Your task to perform on an android device: Open Reddit.com Image 0: 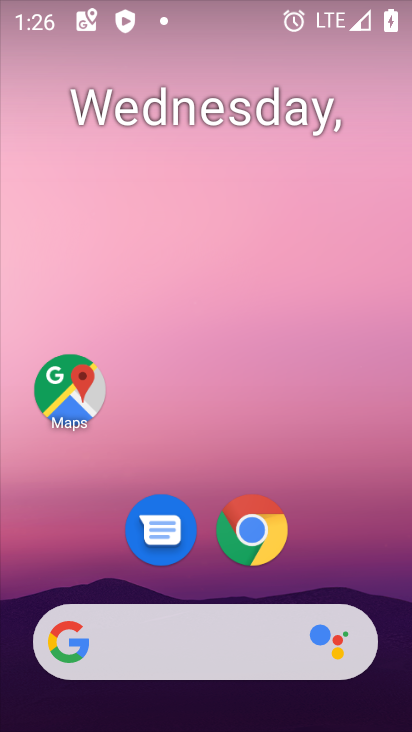
Step 0: press home button
Your task to perform on an android device: Open Reddit.com Image 1: 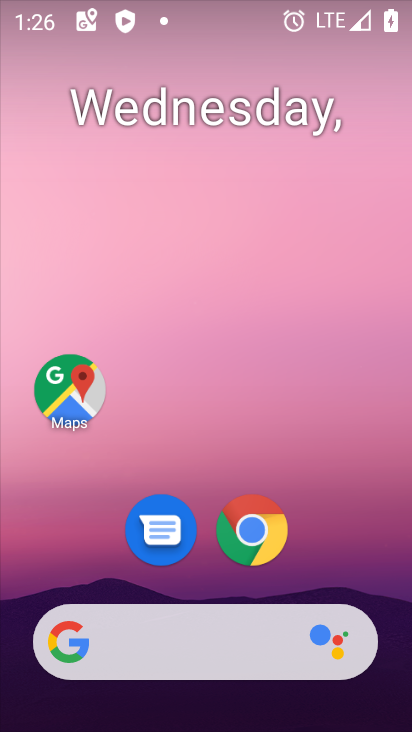
Step 1: drag from (353, 596) to (323, 259)
Your task to perform on an android device: Open Reddit.com Image 2: 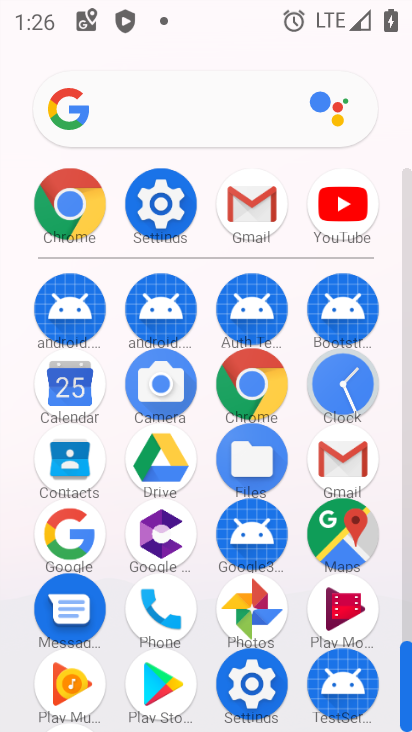
Step 2: click (83, 215)
Your task to perform on an android device: Open Reddit.com Image 3: 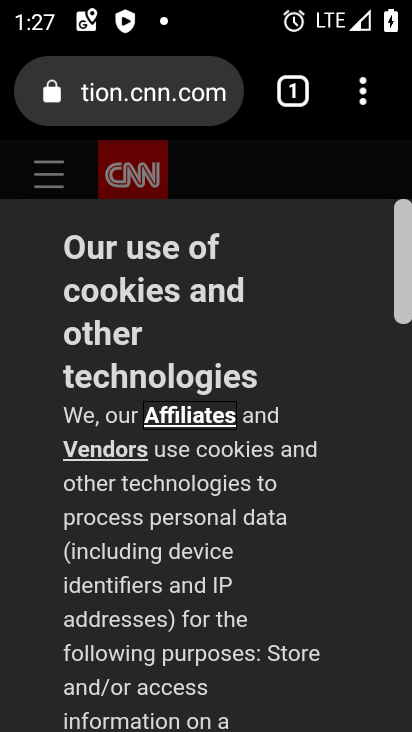
Step 3: click (179, 89)
Your task to perform on an android device: Open Reddit.com Image 4: 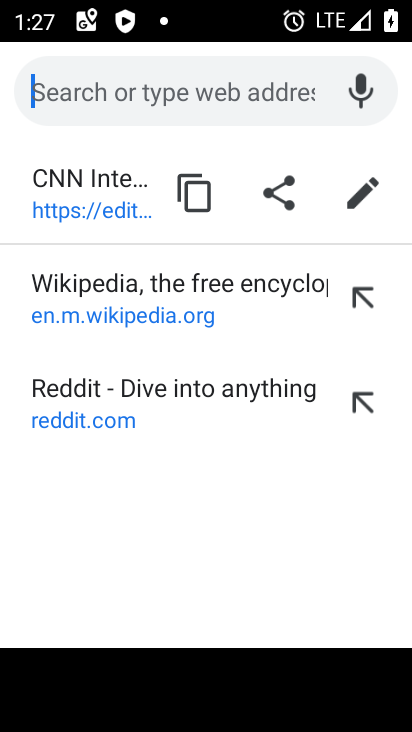
Step 4: type "reddit.com"
Your task to perform on an android device: Open Reddit.com Image 5: 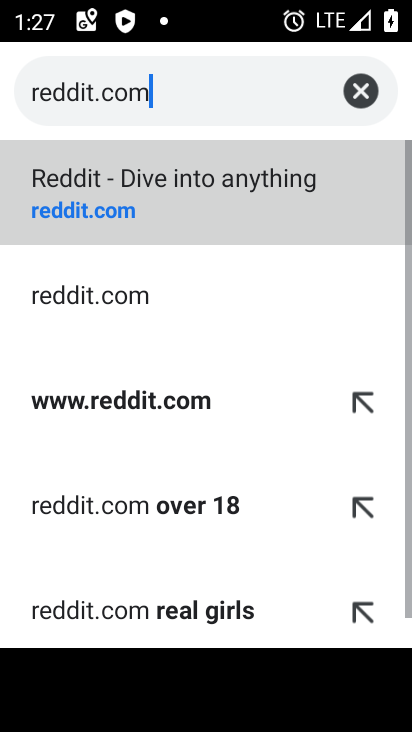
Step 5: click (224, 173)
Your task to perform on an android device: Open Reddit.com Image 6: 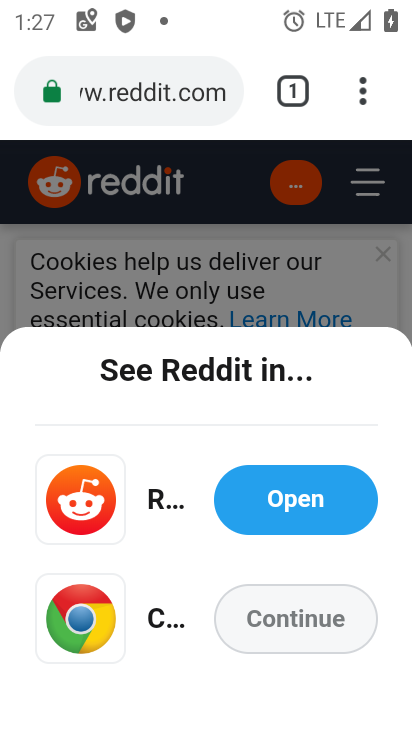
Step 6: task complete